Your task to perform on an android device: Go to privacy settings Image 0: 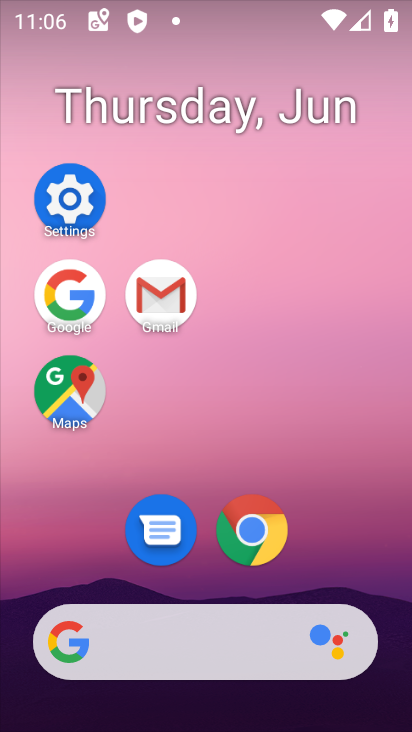
Step 0: click (74, 217)
Your task to perform on an android device: Go to privacy settings Image 1: 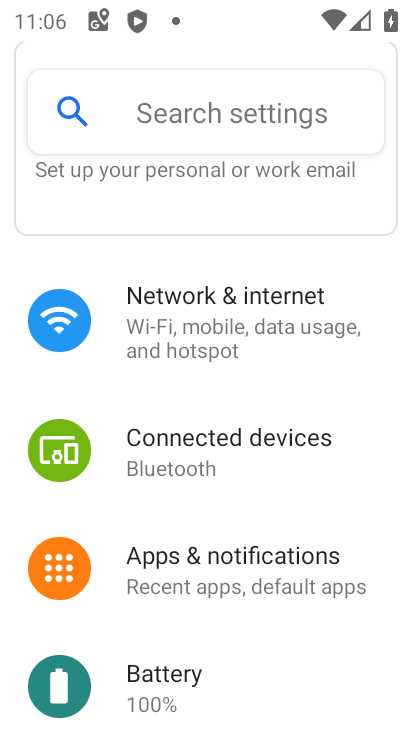
Step 1: drag from (277, 467) to (280, 184)
Your task to perform on an android device: Go to privacy settings Image 2: 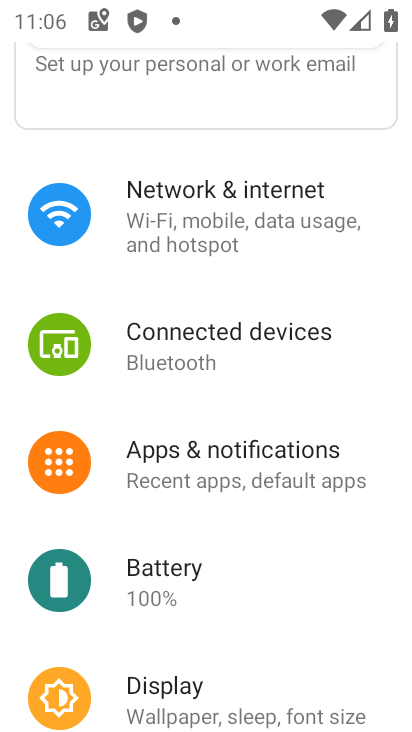
Step 2: drag from (190, 637) to (200, 205)
Your task to perform on an android device: Go to privacy settings Image 3: 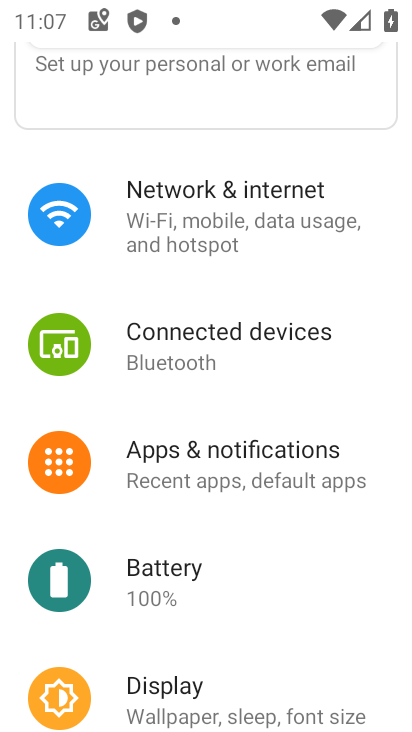
Step 3: drag from (267, 639) to (280, 231)
Your task to perform on an android device: Go to privacy settings Image 4: 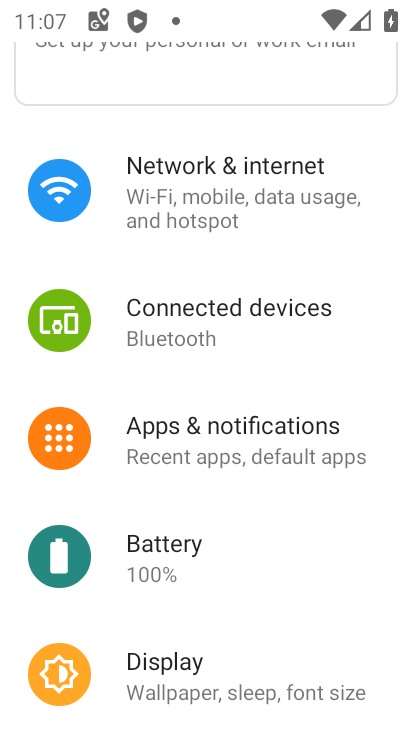
Step 4: drag from (272, 655) to (315, 218)
Your task to perform on an android device: Go to privacy settings Image 5: 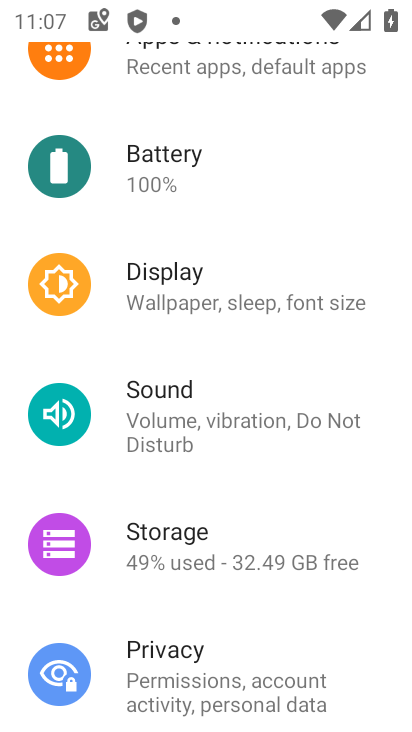
Step 5: click (261, 644)
Your task to perform on an android device: Go to privacy settings Image 6: 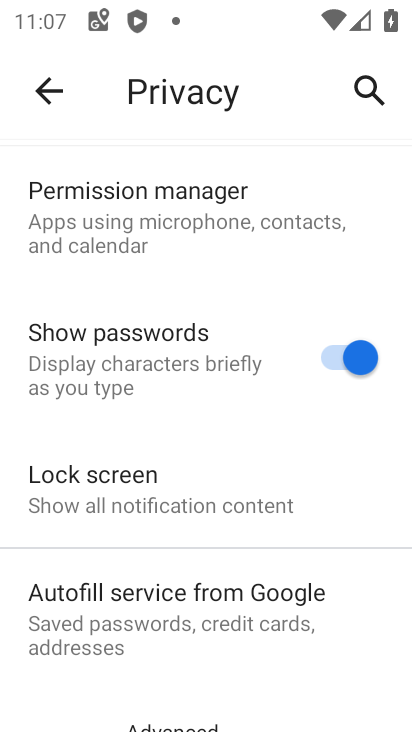
Step 6: task complete